Your task to perform on an android device: Add "acer predator" to the cart on costco.com Image 0: 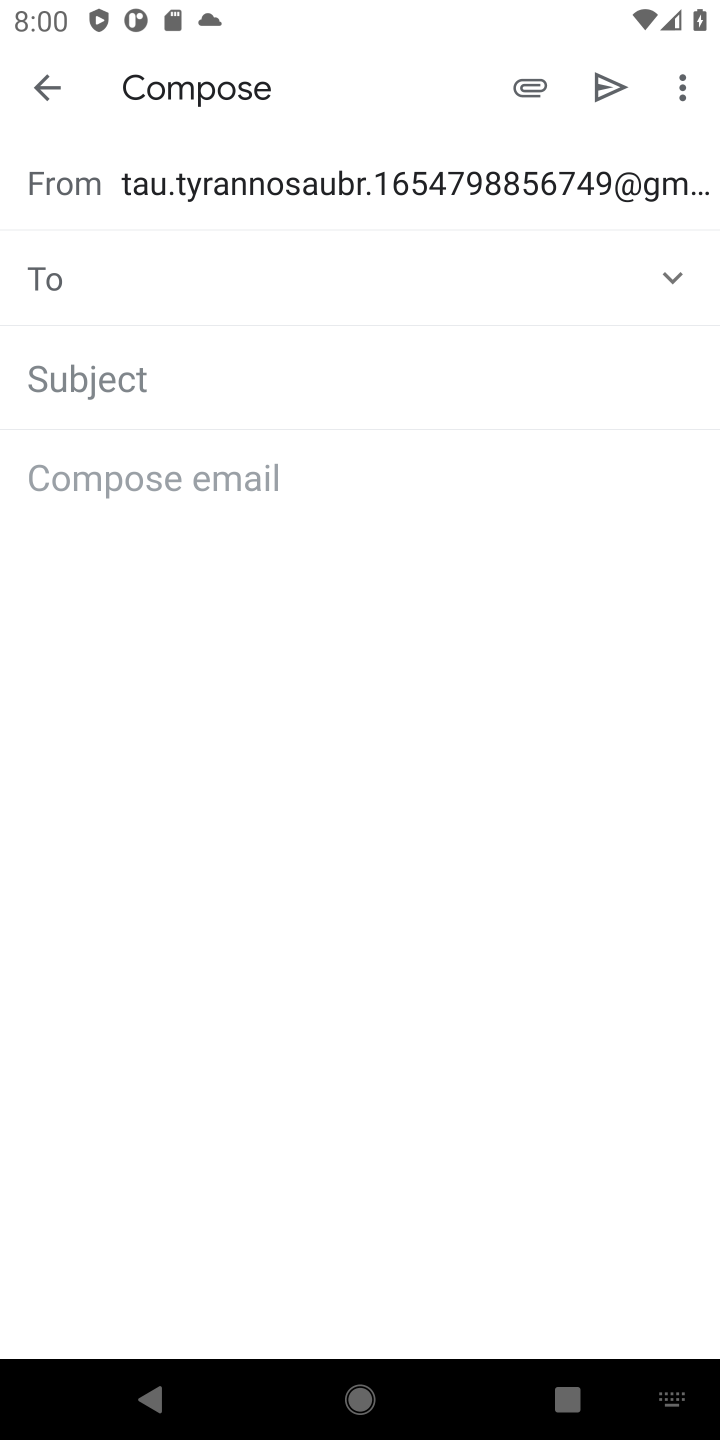
Step 0: press home button
Your task to perform on an android device: Add "acer predator" to the cart on costco.com Image 1: 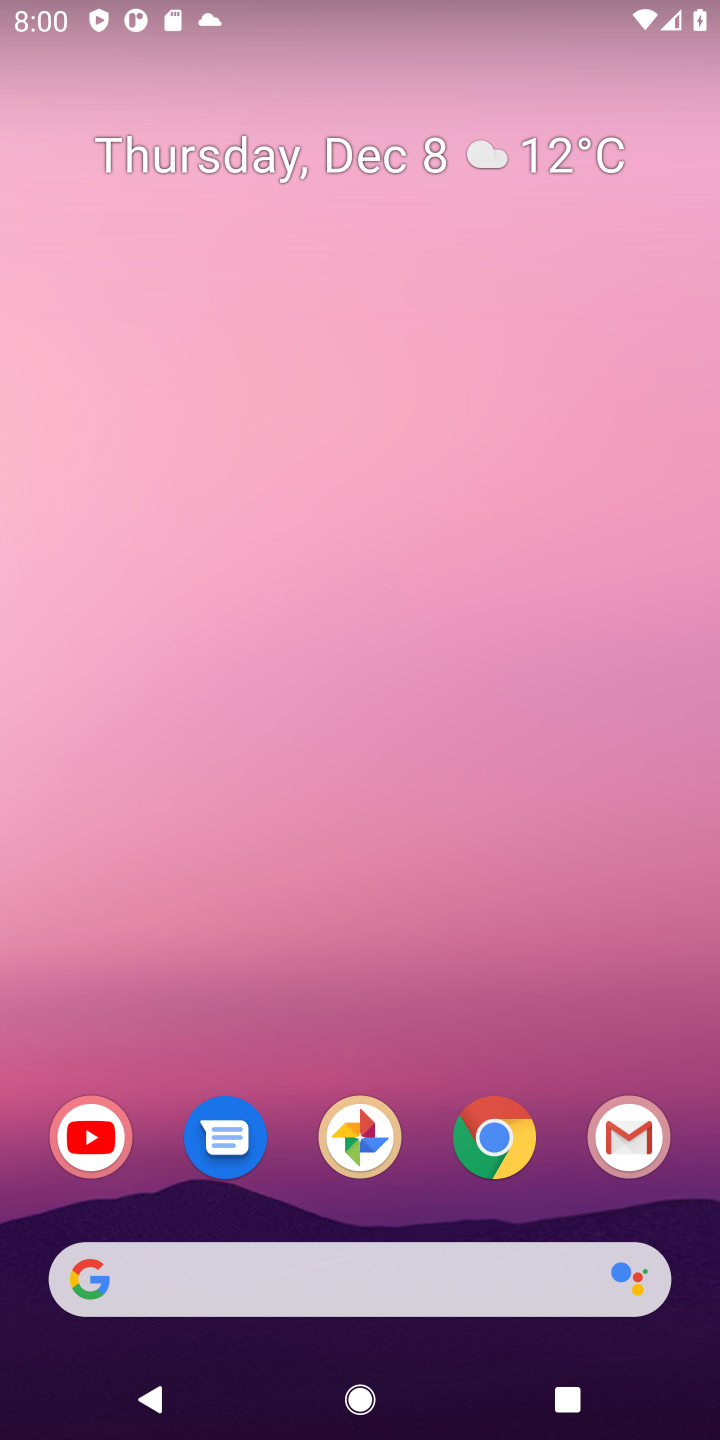
Step 1: click (499, 1132)
Your task to perform on an android device: Add "acer predator" to the cart on costco.com Image 2: 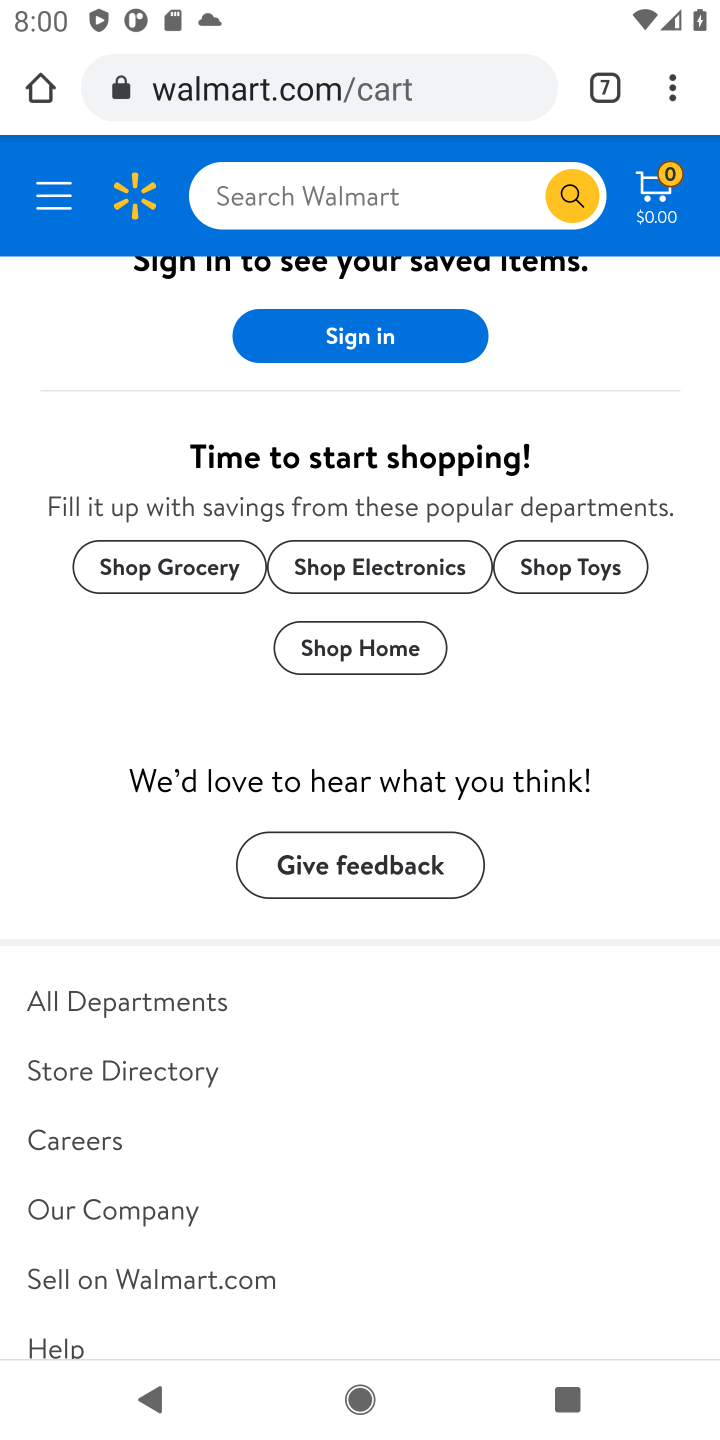
Step 2: click (606, 86)
Your task to perform on an android device: Add "acer predator" to the cart on costco.com Image 3: 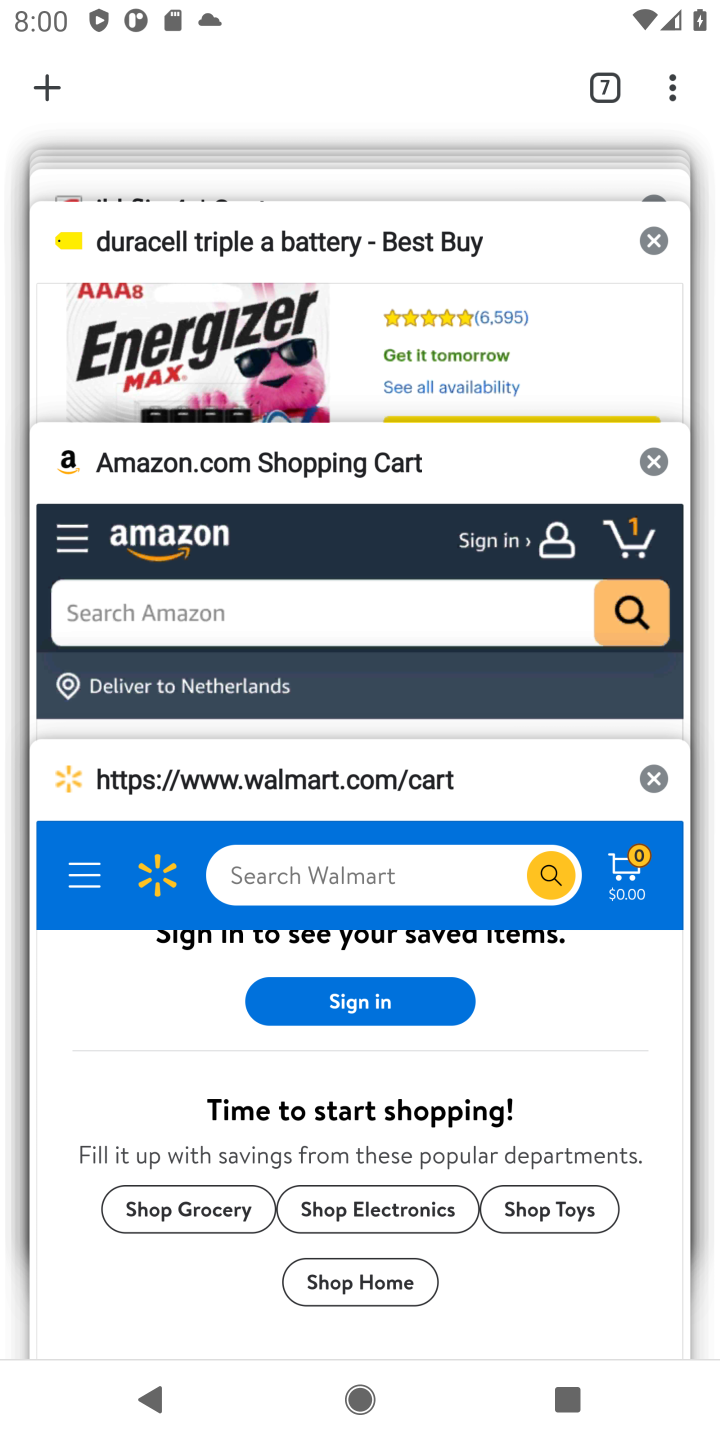
Step 3: drag from (279, 165) to (198, 612)
Your task to perform on an android device: Add "acer predator" to the cart on costco.com Image 4: 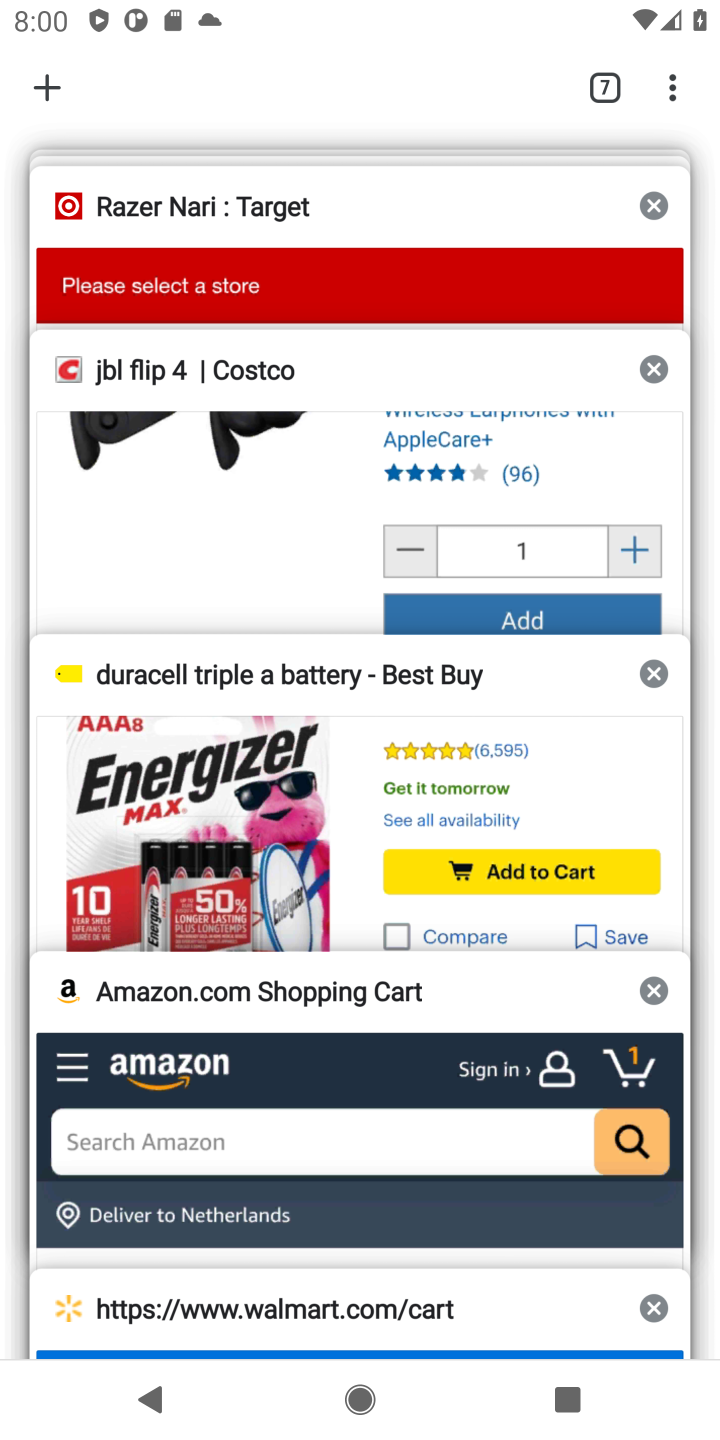
Step 4: click (173, 432)
Your task to perform on an android device: Add "acer predator" to the cart on costco.com Image 5: 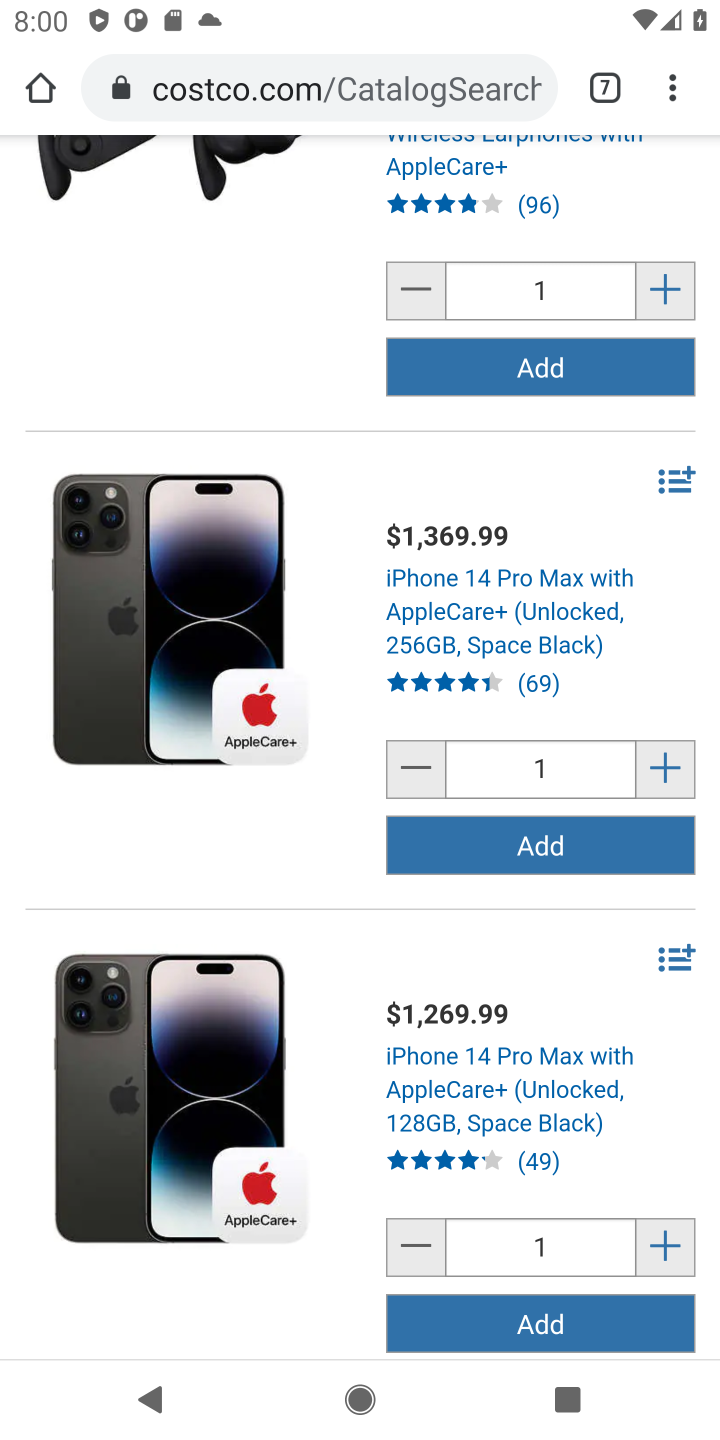
Step 5: drag from (237, 380) to (157, 1406)
Your task to perform on an android device: Add "acer predator" to the cart on costco.com Image 6: 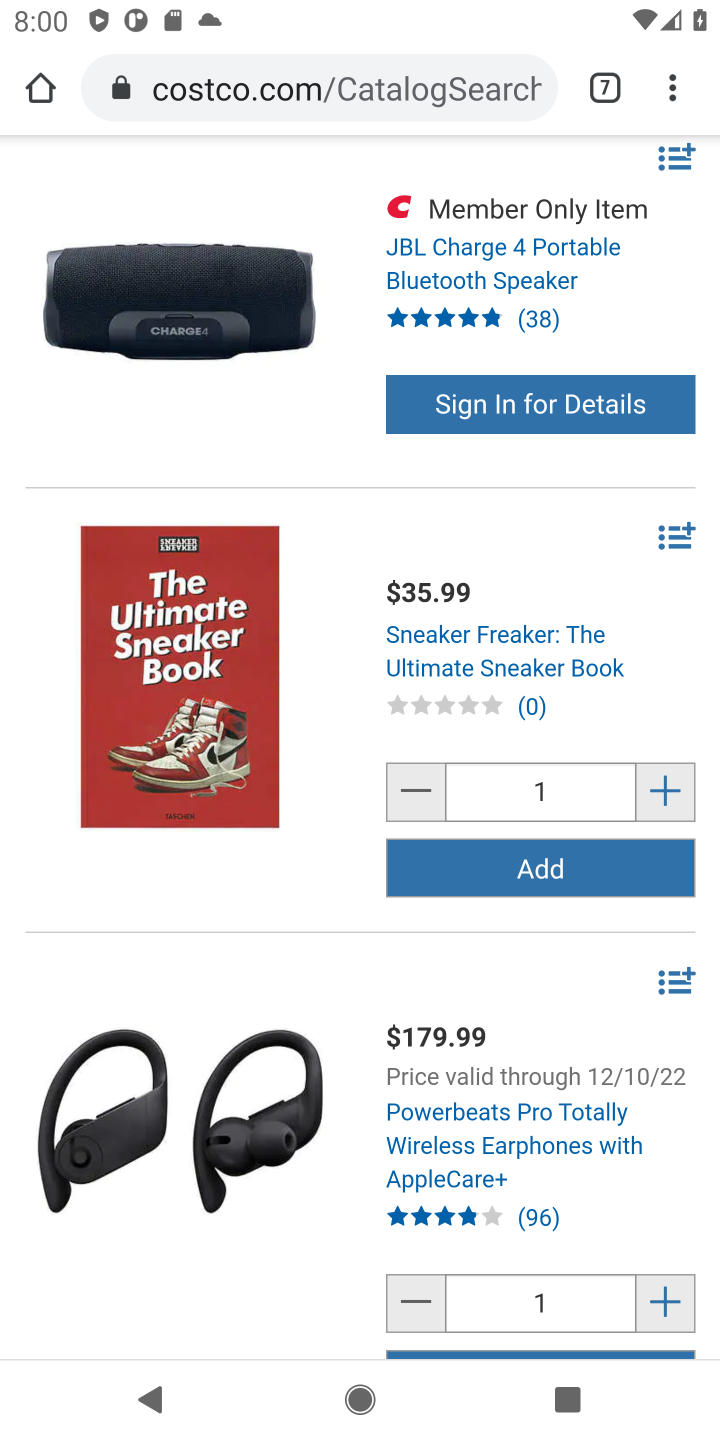
Step 6: drag from (285, 200) to (284, 1231)
Your task to perform on an android device: Add "acer predator" to the cart on costco.com Image 7: 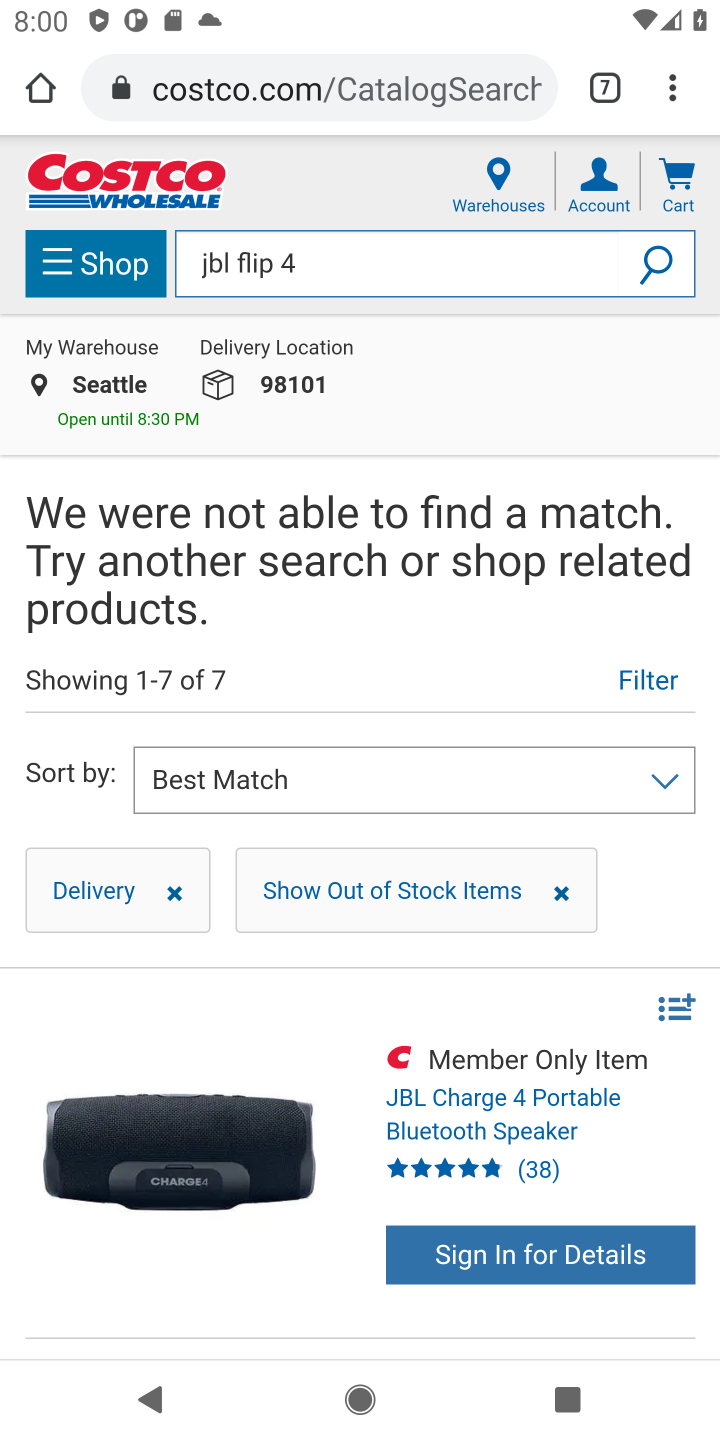
Step 7: click (356, 283)
Your task to perform on an android device: Add "acer predator" to the cart on costco.com Image 8: 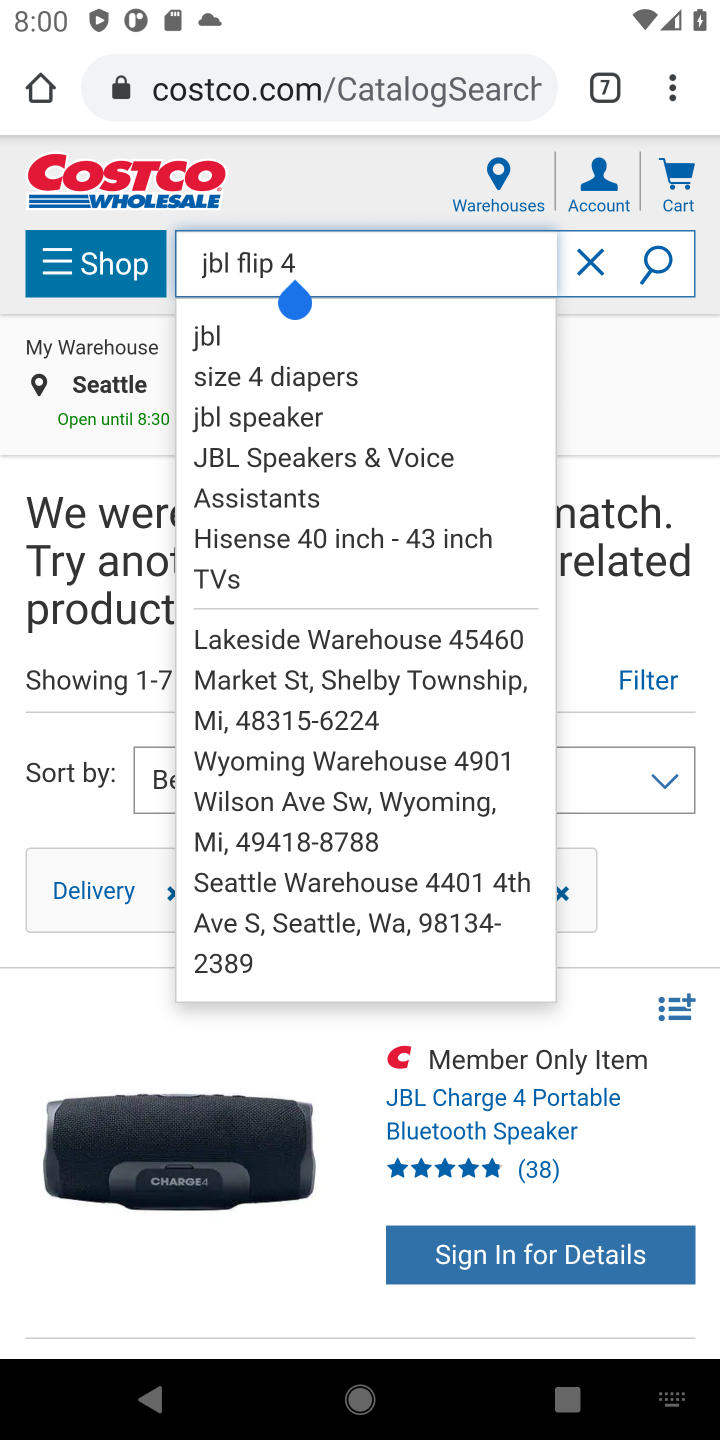
Step 8: click (589, 259)
Your task to perform on an android device: Add "acer predator" to the cart on costco.com Image 9: 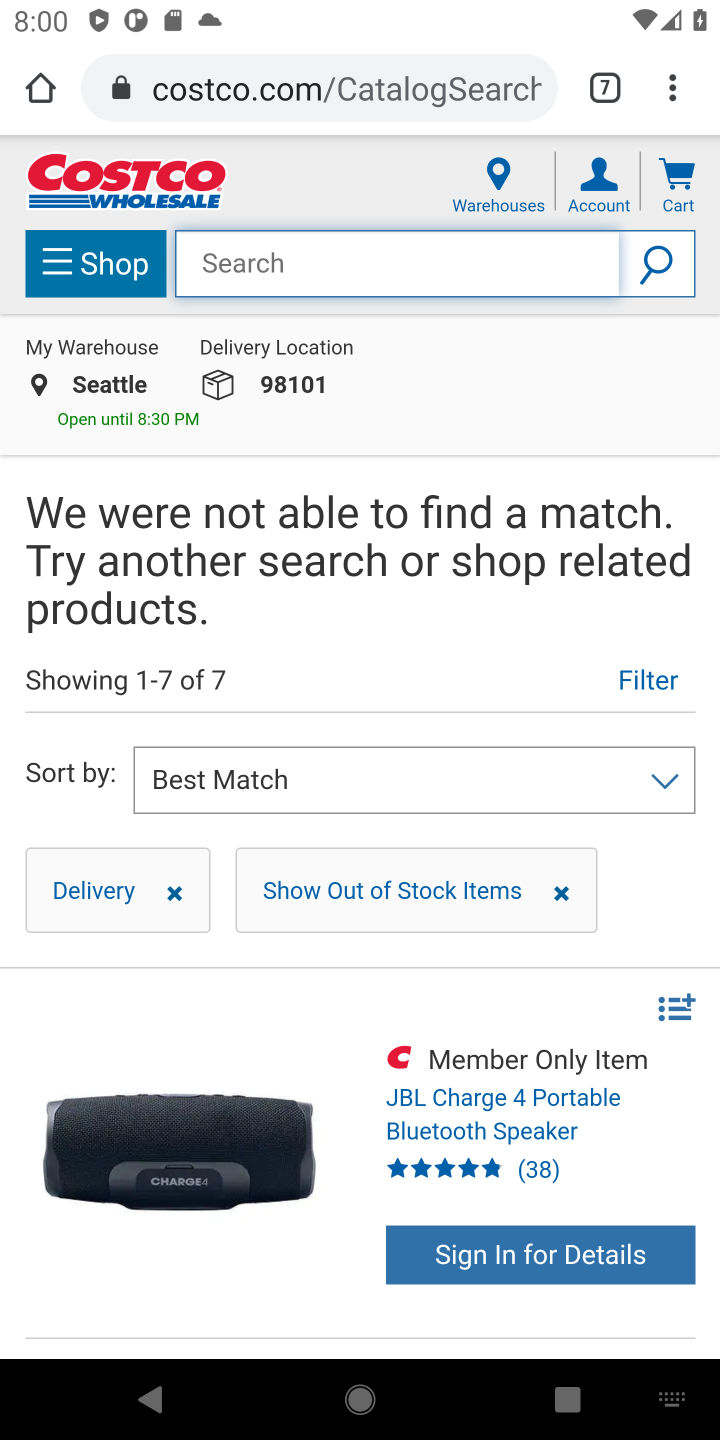
Step 9: type "acer predator"
Your task to perform on an android device: Add "acer predator" to the cart on costco.com Image 10: 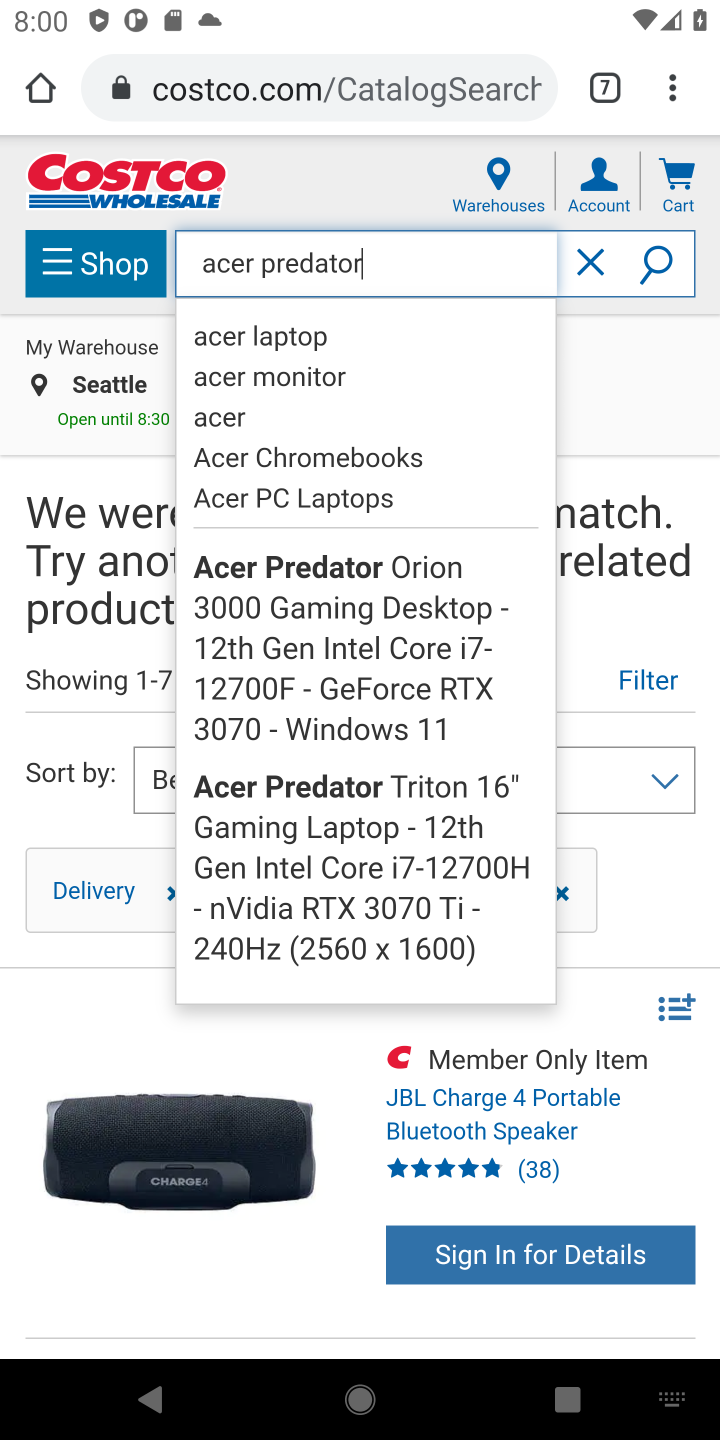
Step 10: click (666, 256)
Your task to perform on an android device: Add "acer predator" to the cart on costco.com Image 11: 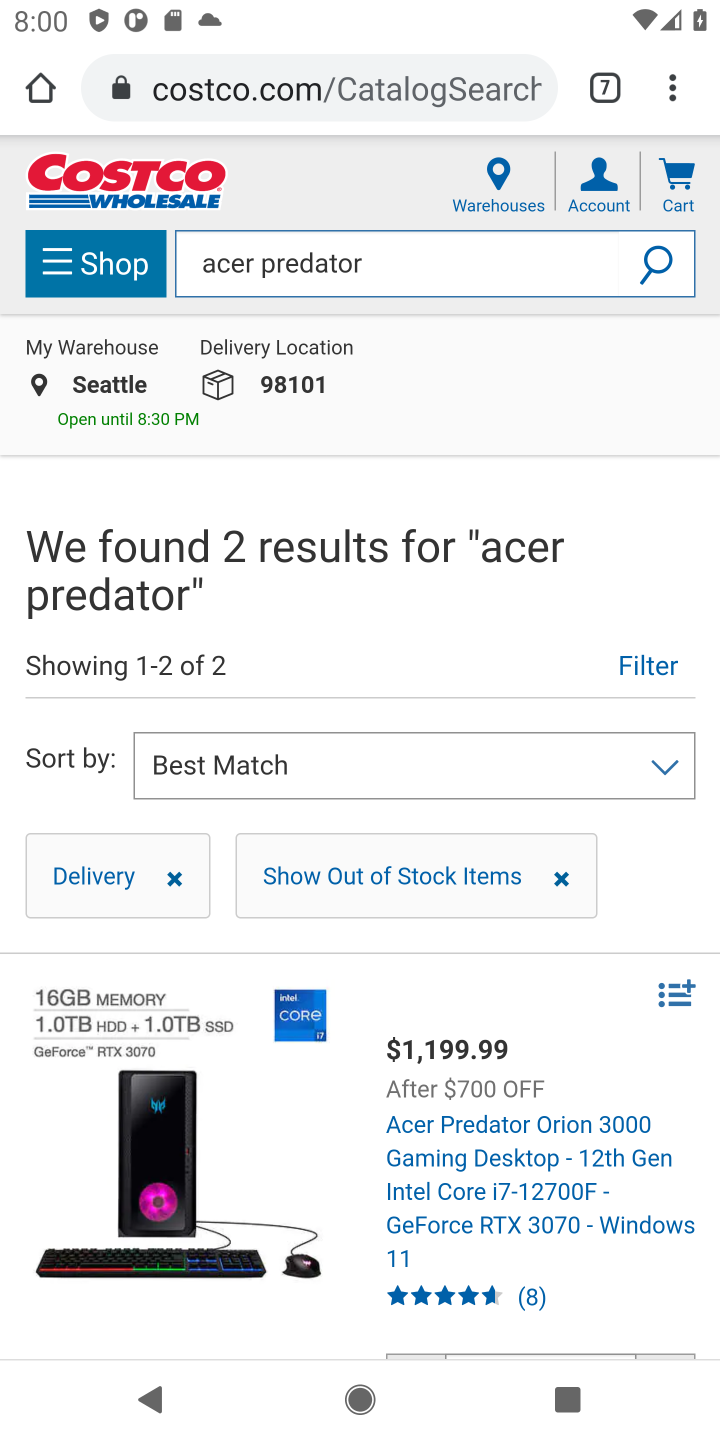
Step 11: drag from (587, 1048) to (575, 533)
Your task to perform on an android device: Add "acer predator" to the cart on costco.com Image 12: 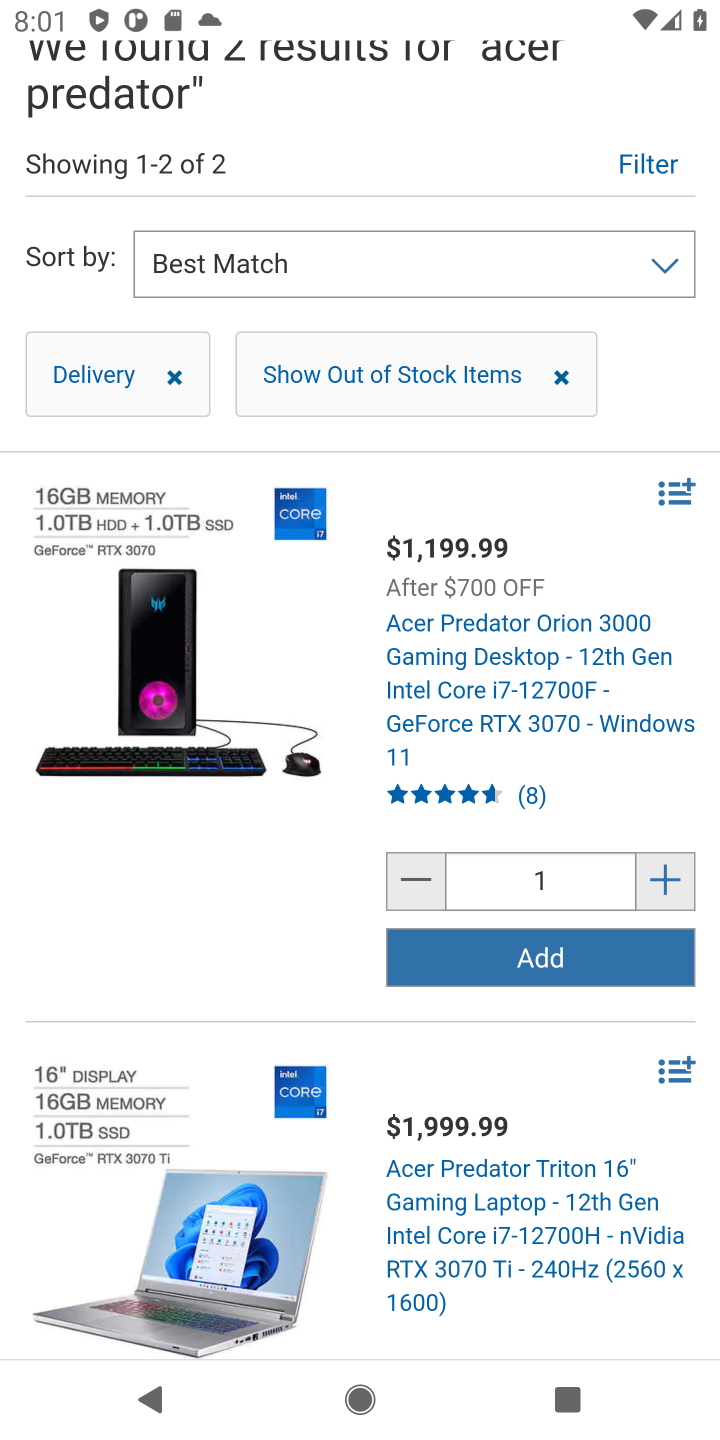
Step 12: click (512, 978)
Your task to perform on an android device: Add "acer predator" to the cart on costco.com Image 13: 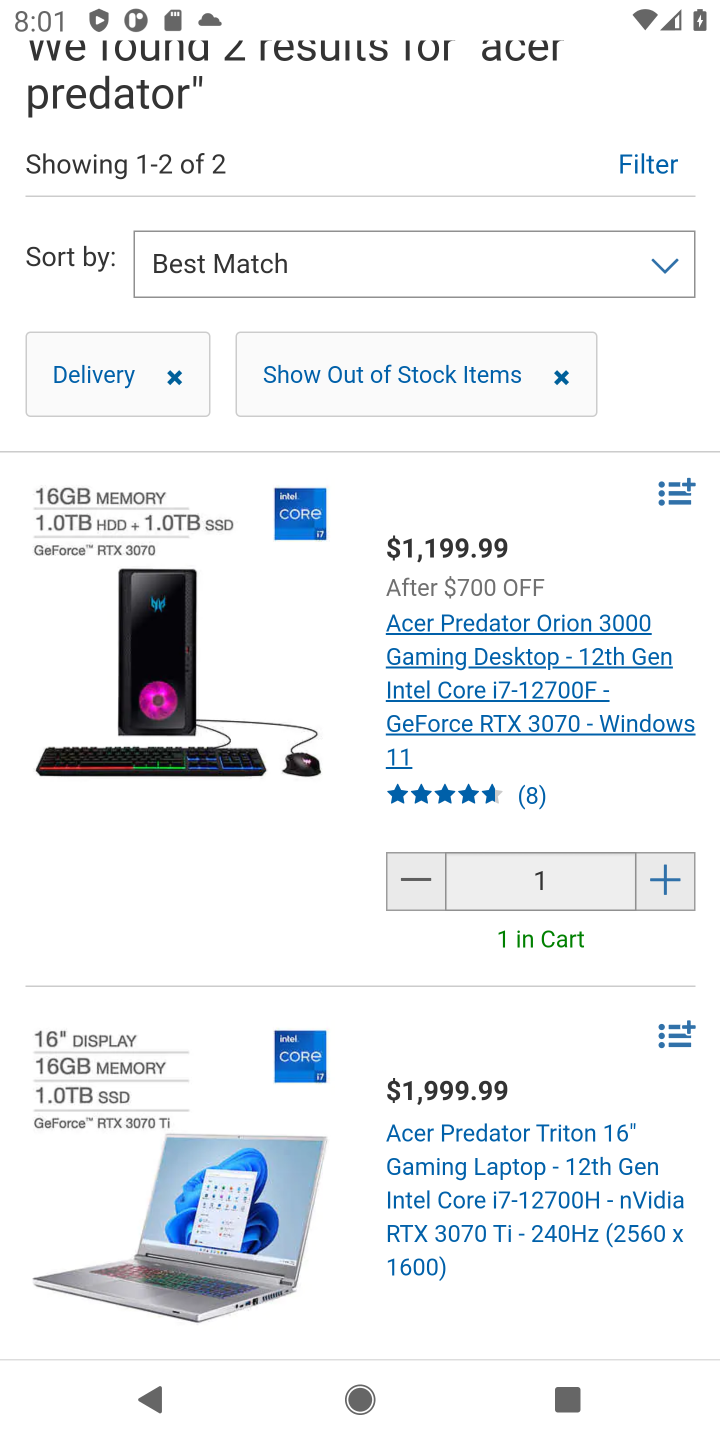
Step 13: task complete